Your task to perform on an android device: Go to display settings Image 0: 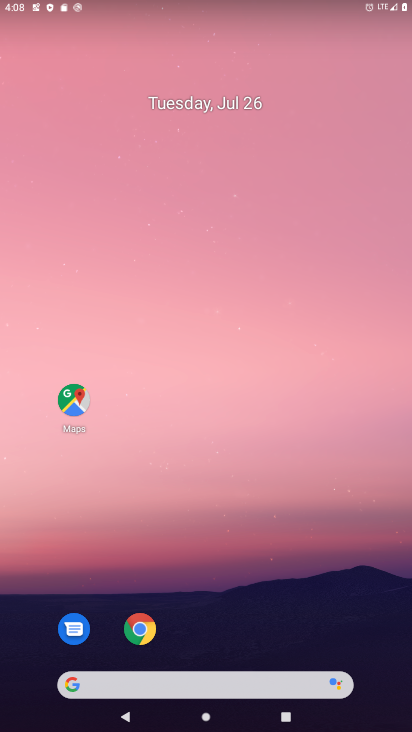
Step 0: drag from (234, 718) to (260, 183)
Your task to perform on an android device: Go to display settings Image 1: 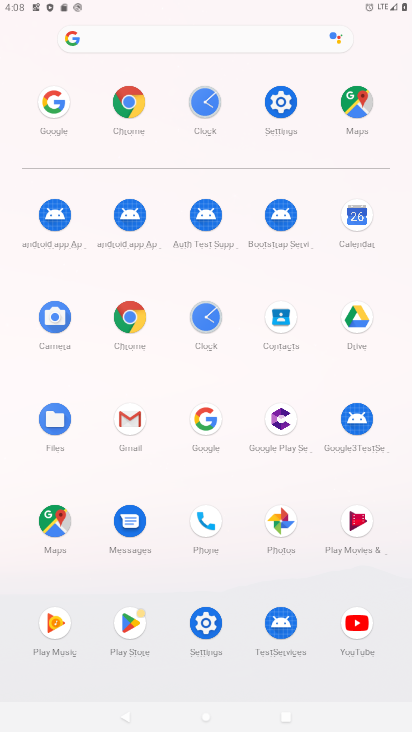
Step 1: click (282, 100)
Your task to perform on an android device: Go to display settings Image 2: 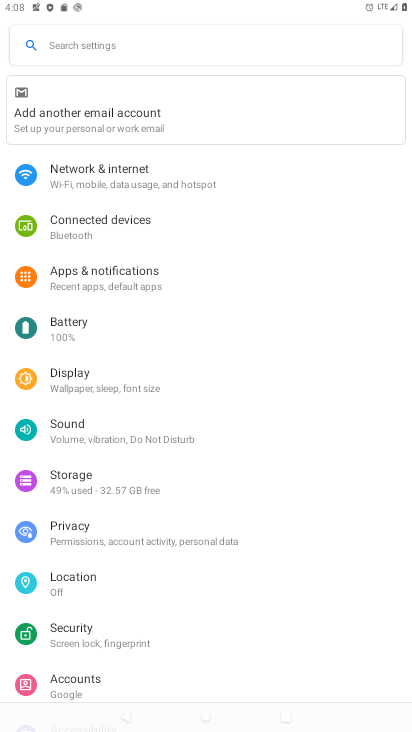
Step 2: click (63, 380)
Your task to perform on an android device: Go to display settings Image 3: 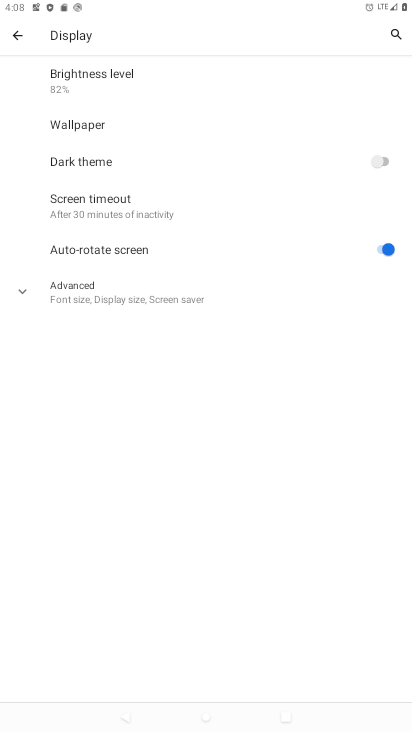
Step 3: task complete